Your task to perform on an android device: Do I have any events tomorrow? Image 0: 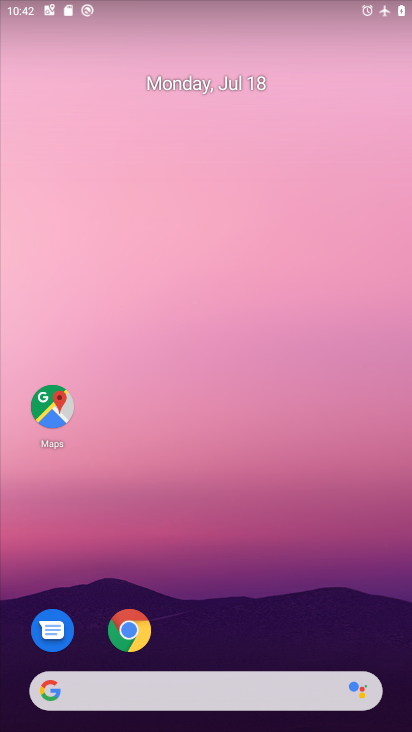
Step 0: drag from (209, 624) to (230, 142)
Your task to perform on an android device: Do I have any events tomorrow? Image 1: 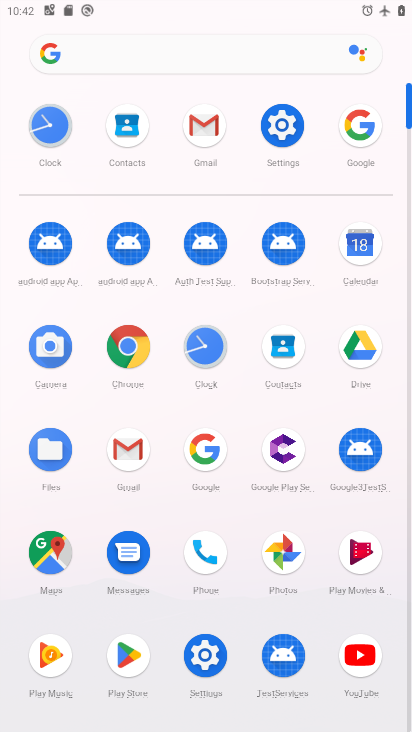
Step 1: click (369, 250)
Your task to perform on an android device: Do I have any events tomorrow? Image 2: 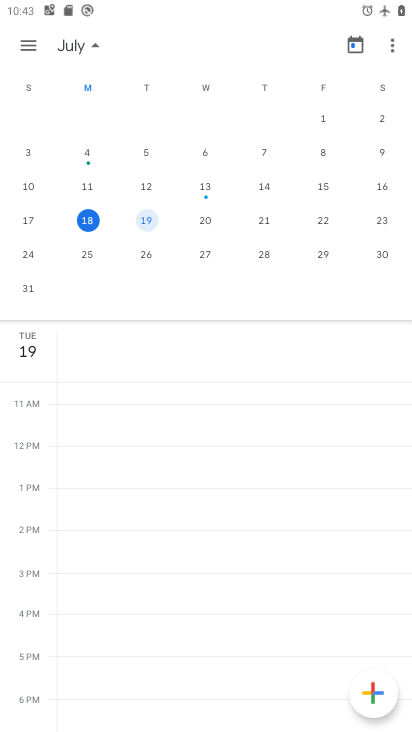
Step 2: click (138, 223)
Your task to perform on an android device: Do I have any events tomorrow? Image 3: 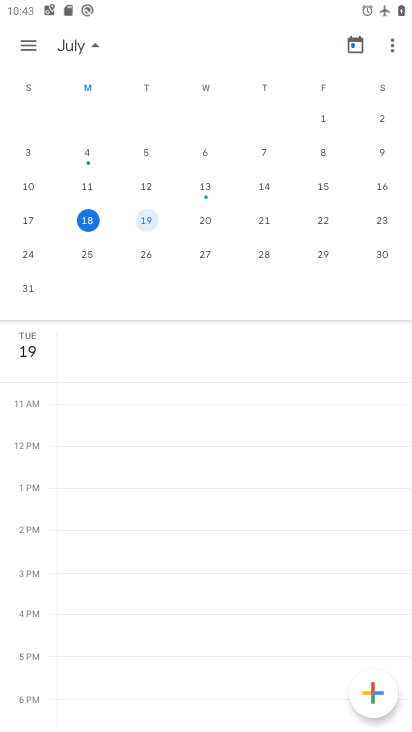
Step 3: task complete